Your task to perform on an android device: Open the stopwatch Image 0: 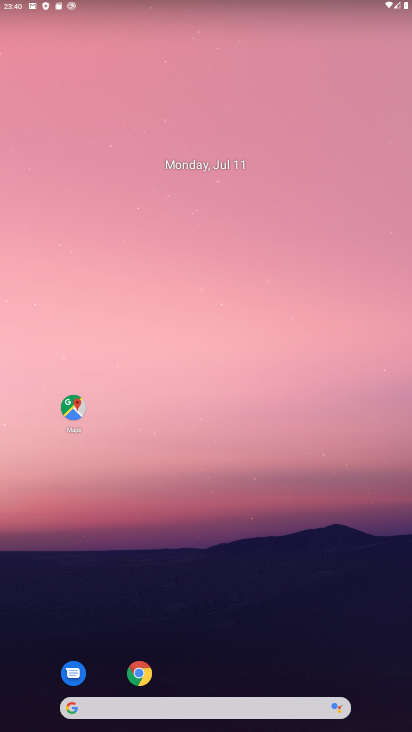
Step 0: press home button
Your task to perform on an android device: Open the stopwatch Image 1: 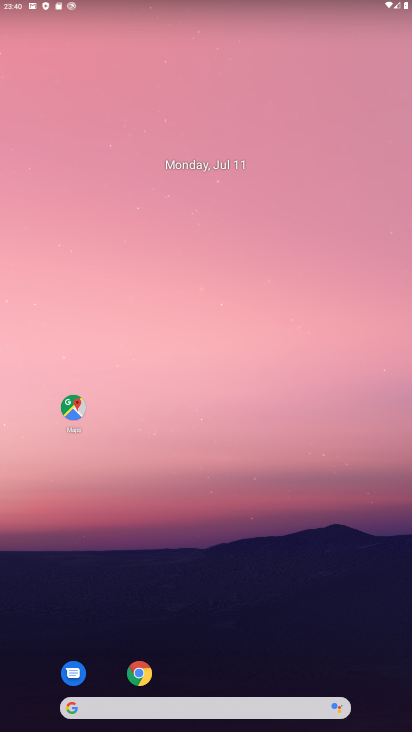
Step 1: drag from (242, 478) to (208, 22)
Your task to perform on an android device: Open the stopwatch Image 2: 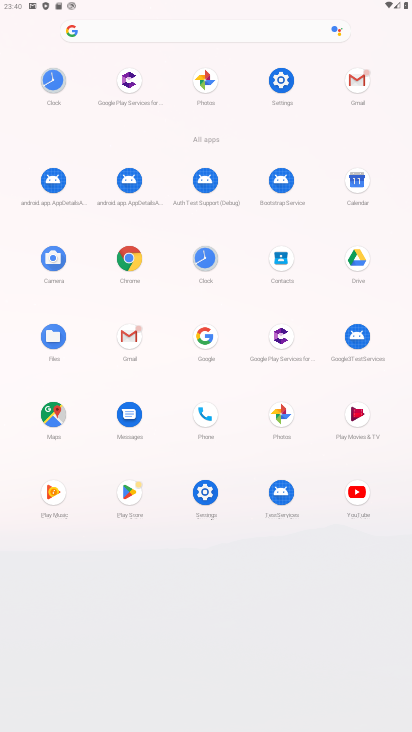
Step 2: click (203, 259)
Your task to perform on an android device: Open the stopwatch Image 3: 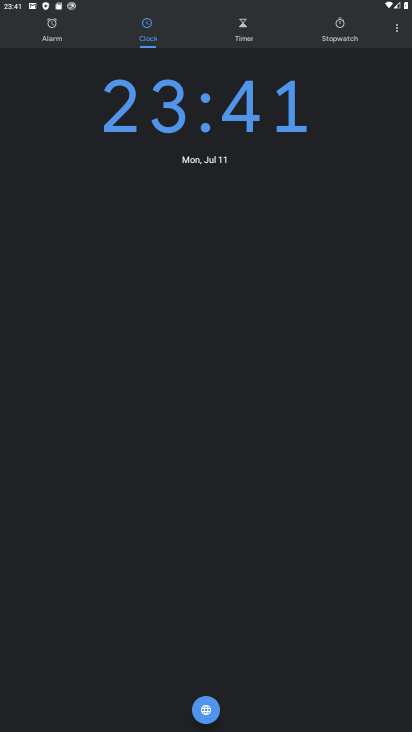
Step 3: click (333, 23)
Your task to perform on an android device: Open the stopwatch Image 4: 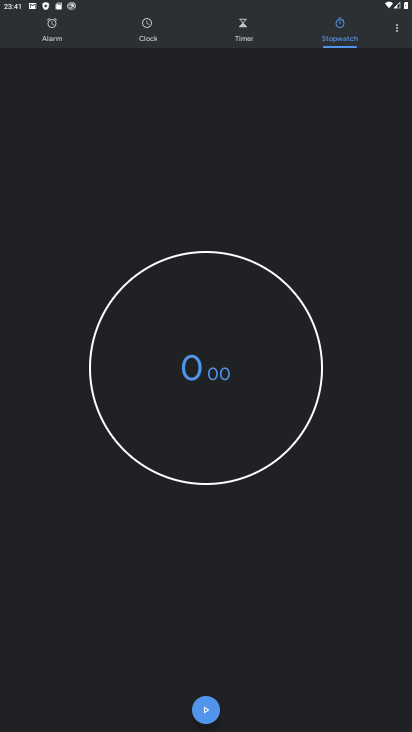
Step 4: click (212, 700)
Your task to perform on an android device: Open the stopwatch Image 5: 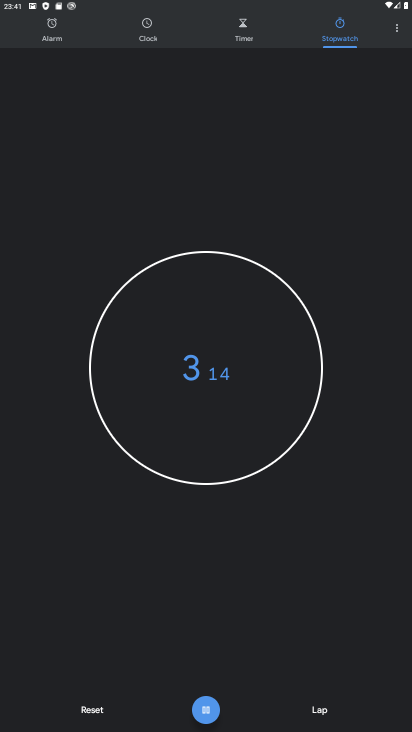
Step 5: click (205, 718)
Your task to perform on an android device: Open the stopwatch Image 6: 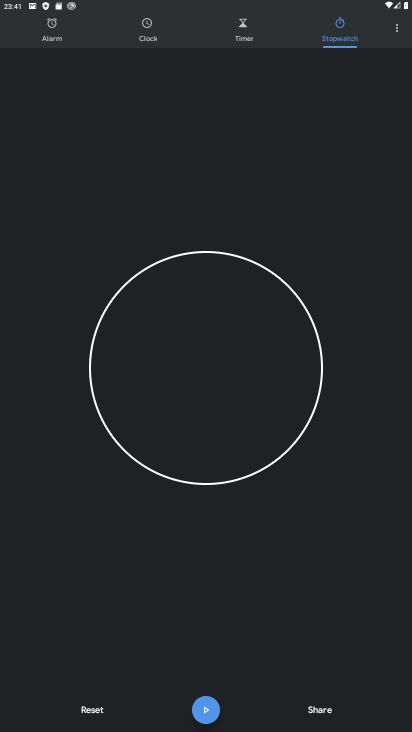
Step 6: task complete